Your task to perform on an android device: Open the phone app and click the voicemail tab. Image 0: 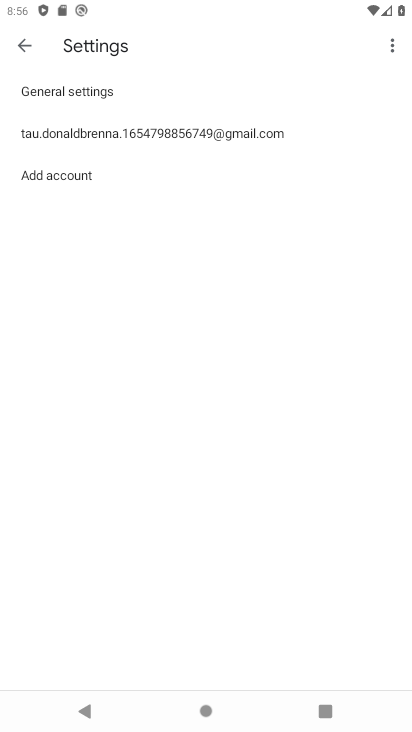
Step 0: click (24, 414)
Your task to perform on an android device: Open the phone app and click the voicemail tab. Image 1: 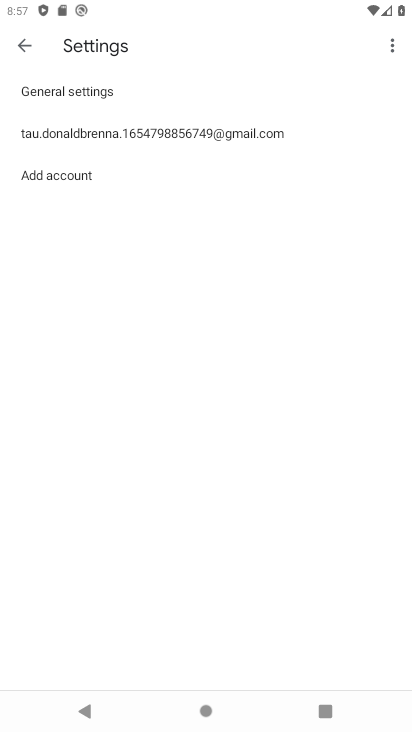
Step 1: press home button
Your task to perform on an android device: Open the phone app and click the voicemail tab. Image 2: 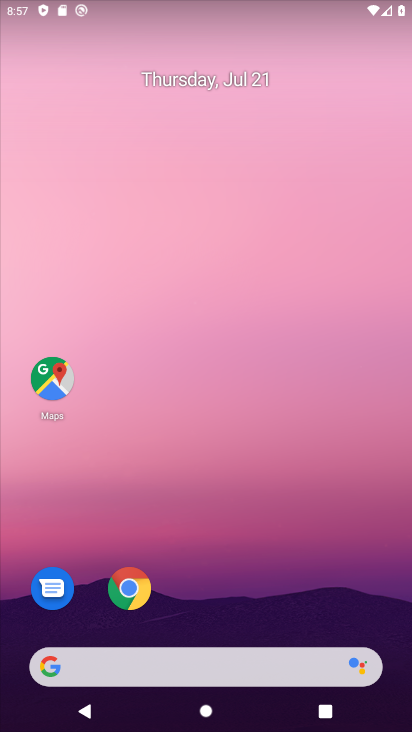
Step 2: drag from (386, 707) to (345, 261)
Your task to perform on an android device: Open the phone app and click the voicemail tab. Image 3: 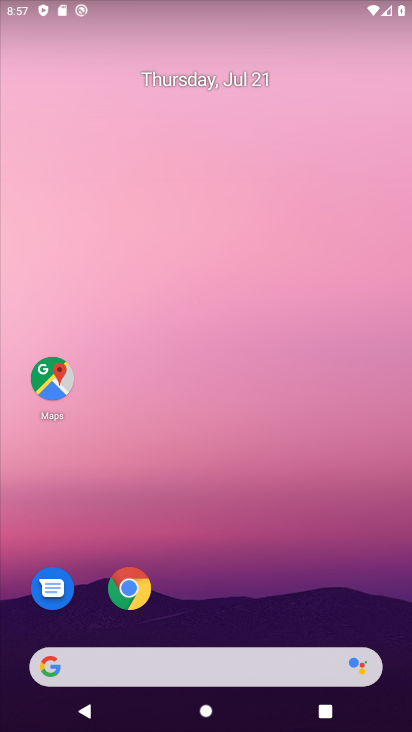
Step 3: drag from (396, 694) to (346, 292)
Your task to perform on an android device: Open the phone app and click the voicemail tab. Image 4: 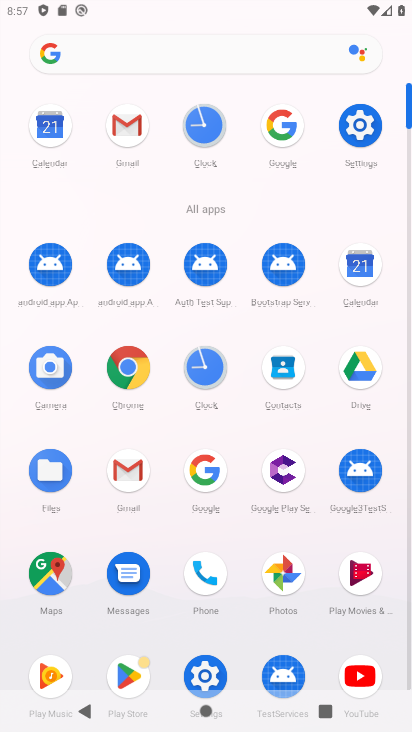
Step 4: click (195, 566)
Your task to perform on an android device: Open the phone app and click the voicemail tab. Image 5: 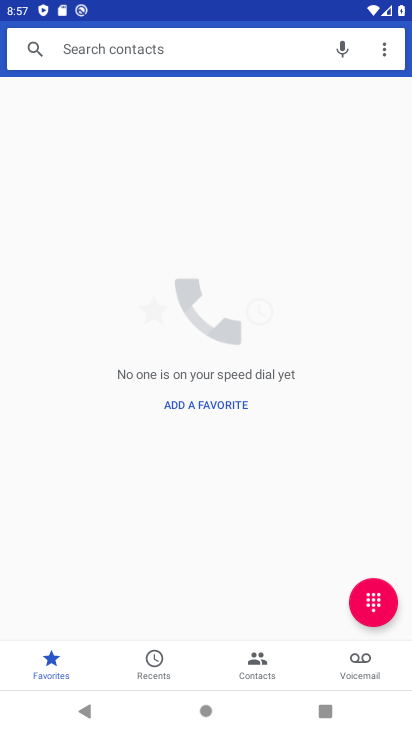
Step 5: click (372, 678)
Your task to perform on an android device: Open the phone app and click the voicemail tab. Image 6: 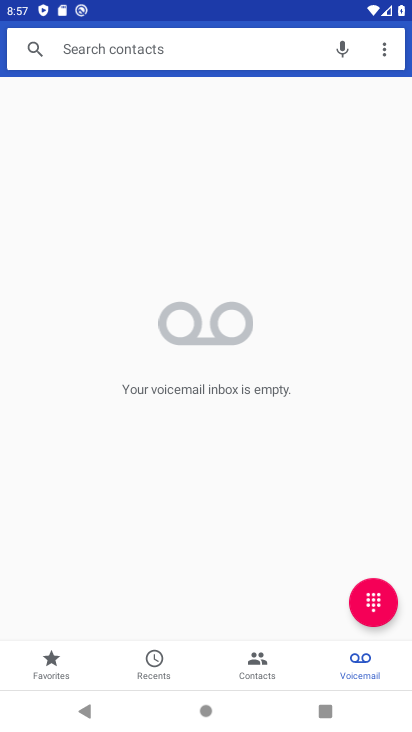
Step 6: task complete